Your task to perform on an android device: Go to Google maps Image 0: 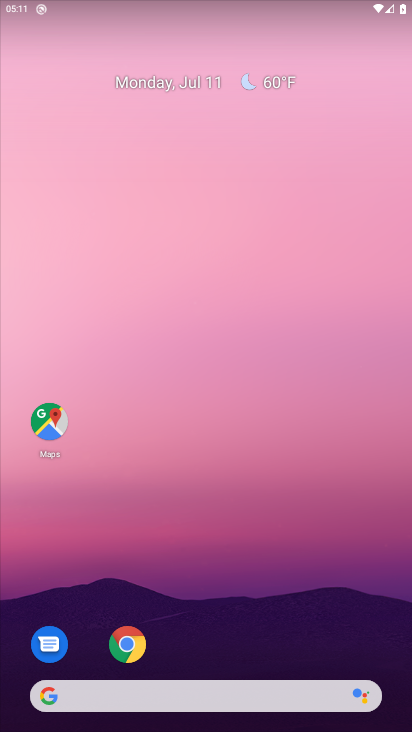
Step 0: click (51, 412)
Your task to perform on an android device: Go to Google maps Image 1: 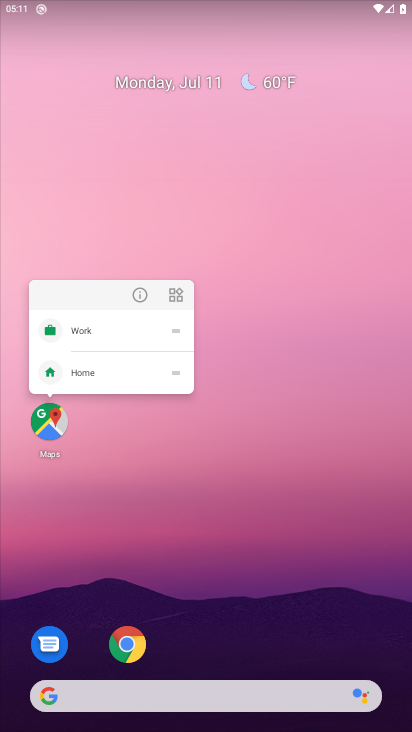
Step 1: click (55, 431)
Your task to perform on an android device: Go to Google maps Image 2: 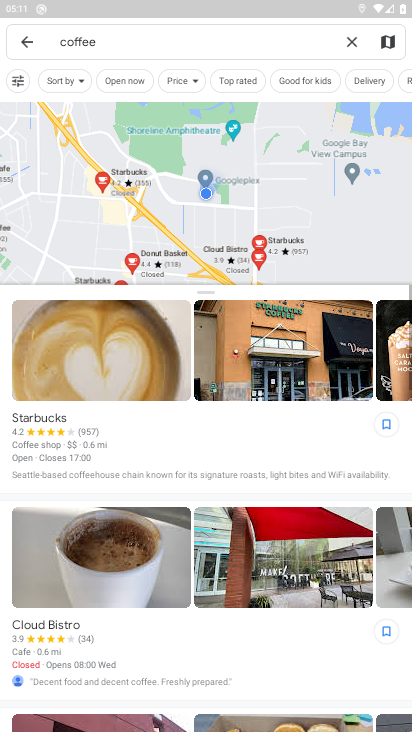
Step 2: click (347, 44)
Your task to perform on an android device: Go to Google maps Image 3: 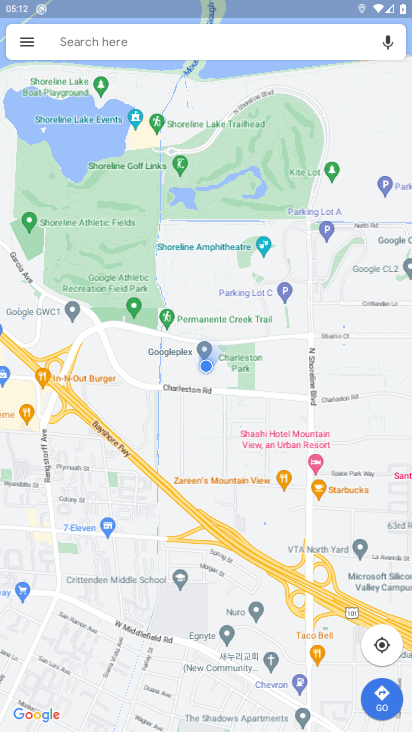
Step 3: task complete